Your task to perform on an android device: Go to display settings Image 0: 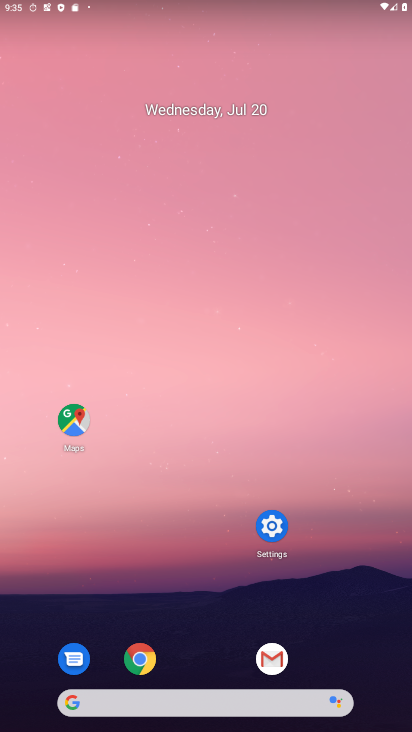
Step 0: press home button
Your task to perform on an android device: Go to display settings Image 1: 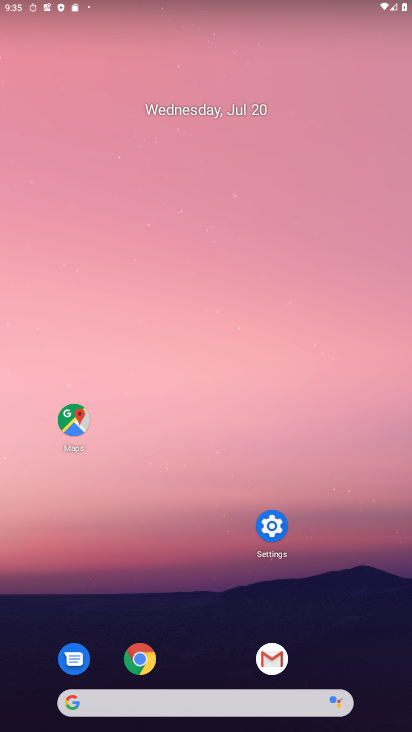
Step 1: click (276, 550)
Your task to perform on an android device: Go to display settings Image 2: 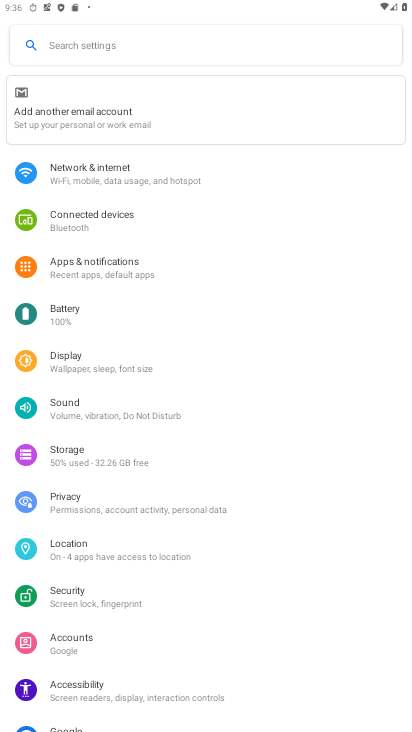
Step 2: click (81, 361)
Your task to perform on an android device: Go to display settings Image 3: 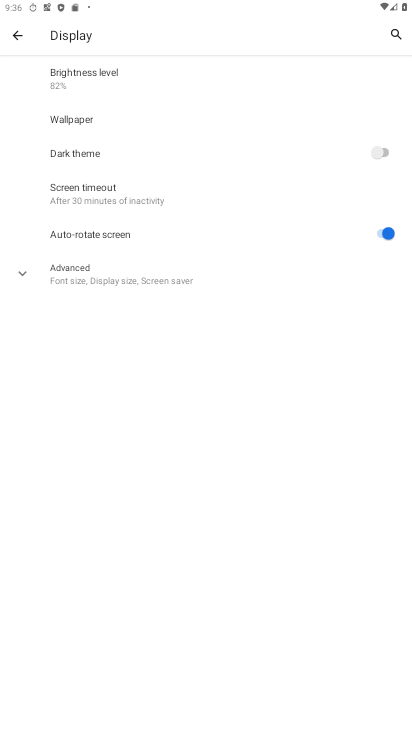
Step 3: task complete